Your task to perform on an android device: Clear all items from cart on target. Search for macbook on target, select the first entry, and add it to the cart. Image 0: 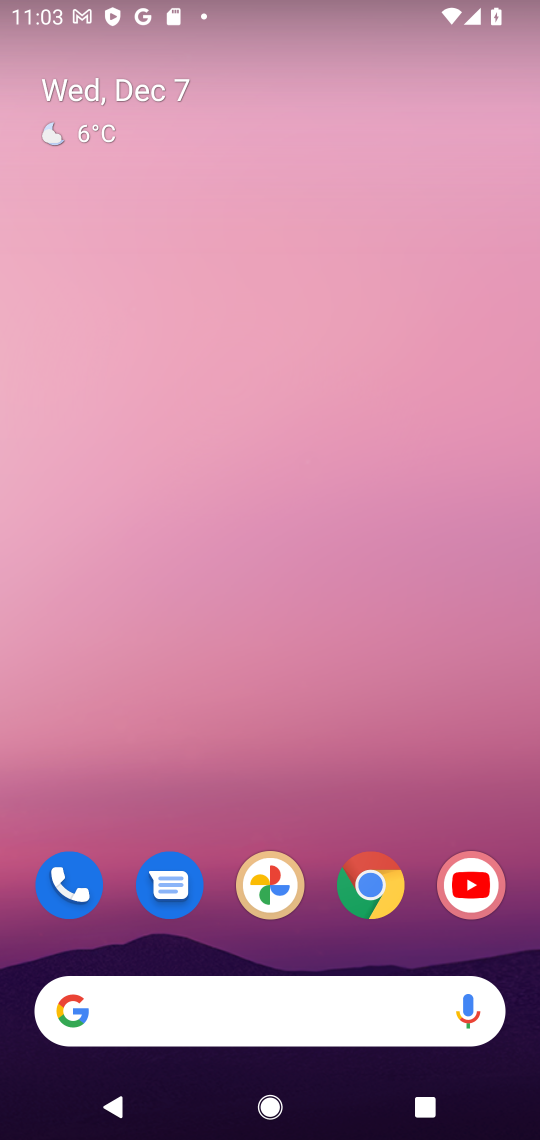
Step 0: click (365, 892)
Your task to perform on an android device: Clear all items from cart on target. Search for macbook on target, select the first entry, and add it to the cart. Image 1: 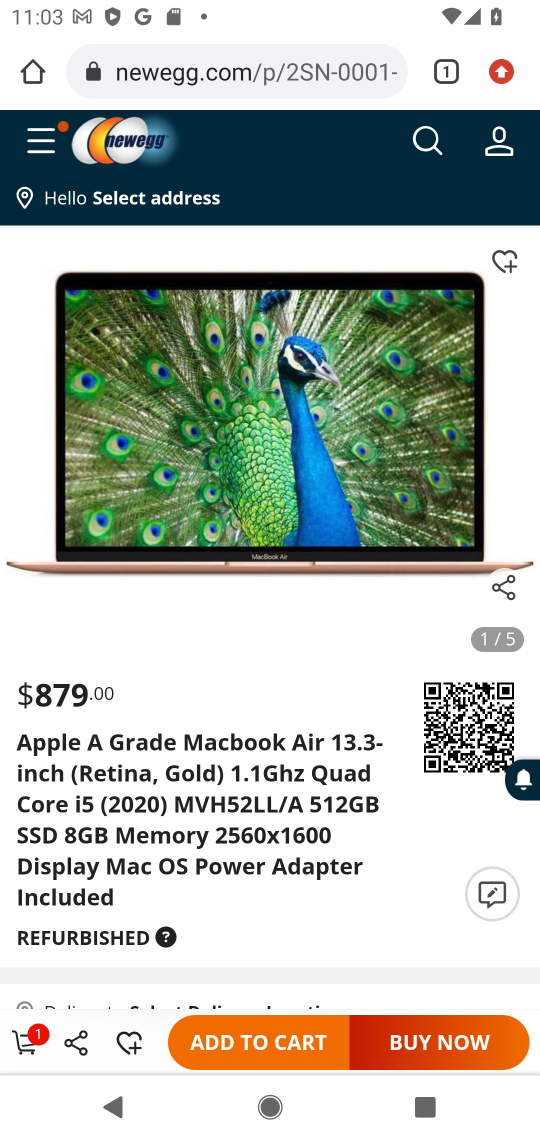
Step 1: click (241, 73)
Your task to perform on an android device: Clear all items from cart on target. Search for macbook on target, select the first entry, and add it to the cart. Image 2: 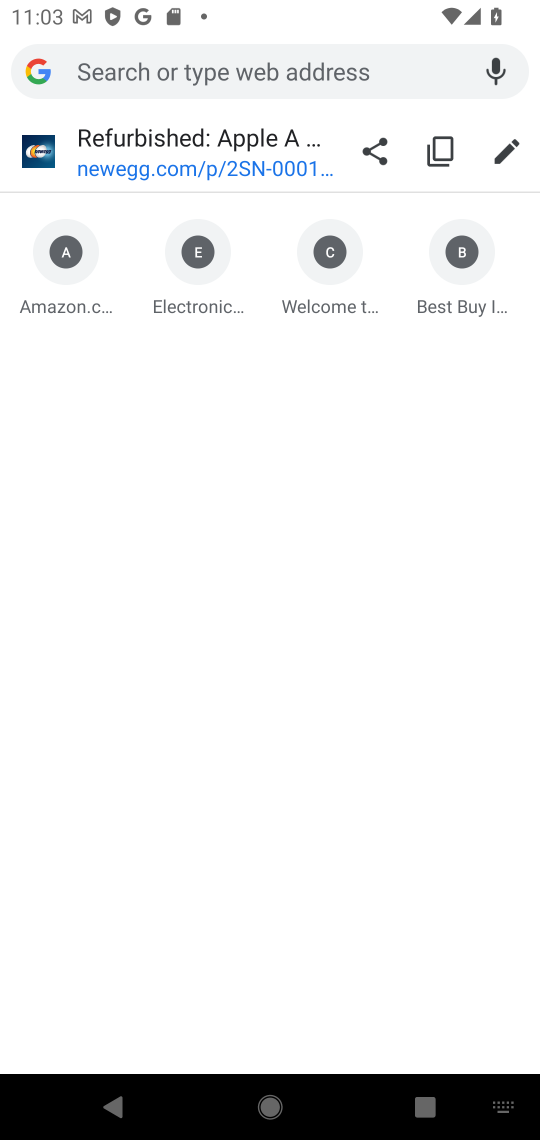
Step 2: type "TARGET"
Your task to perform on an android device: Clear all items from cart on target. Search for macbook on target, select the first entry, and add it to the cart. Image 3: 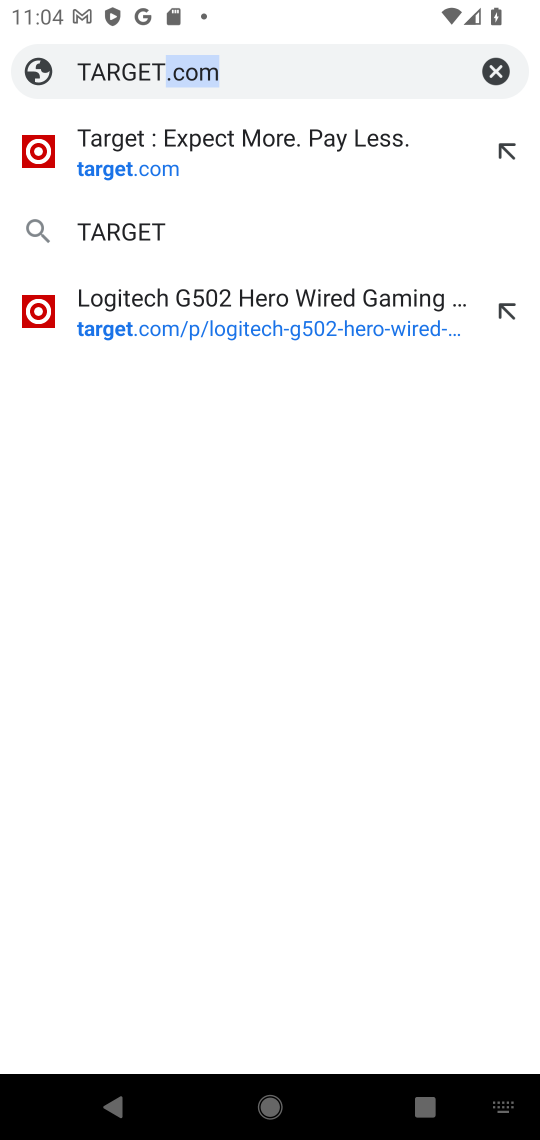
Step 3: click (265, 143)
Your task to perform on an android device: Clear all items from cart on target. Search for macbook on target, select the first entry, and add it to the cart. Image 4: 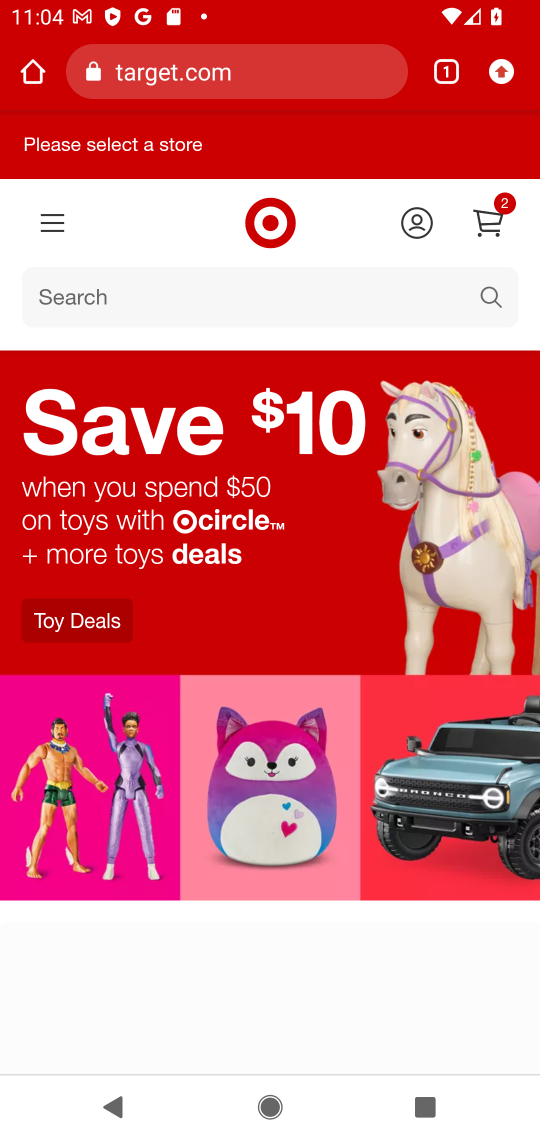
Step 4: click (486, 225)
Your task to perform on an android device: Clear all items from cart on target. Search for macbook on target, select the first entry, and add it to the cart. Image 5: 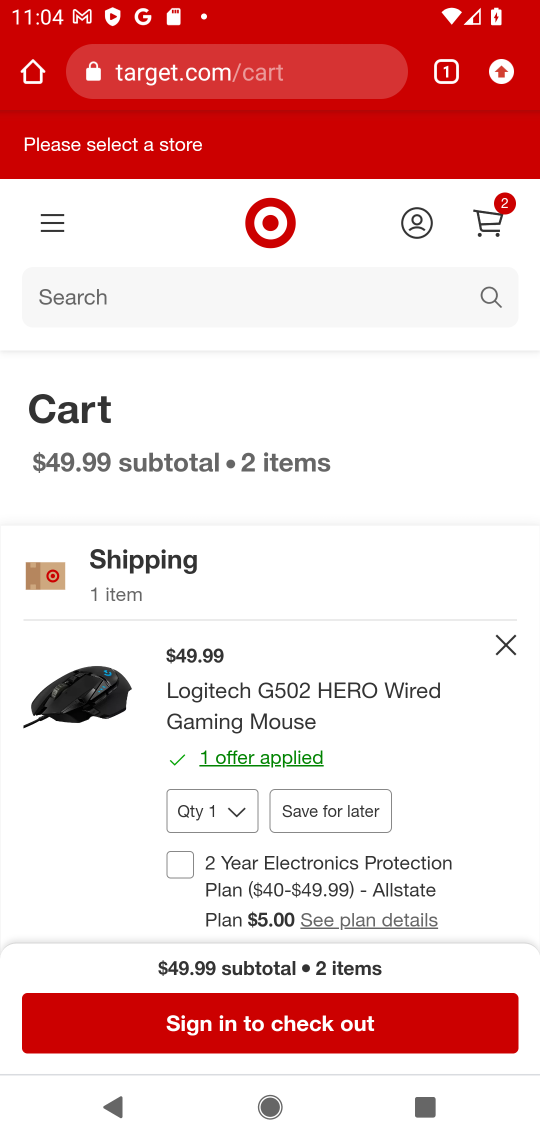
Step 5: click (503, 652)
Your task to perform on an android device: Clear all items from cart on target. Search for macbook on target, select the first entry, and add it to the cart. Image 6: 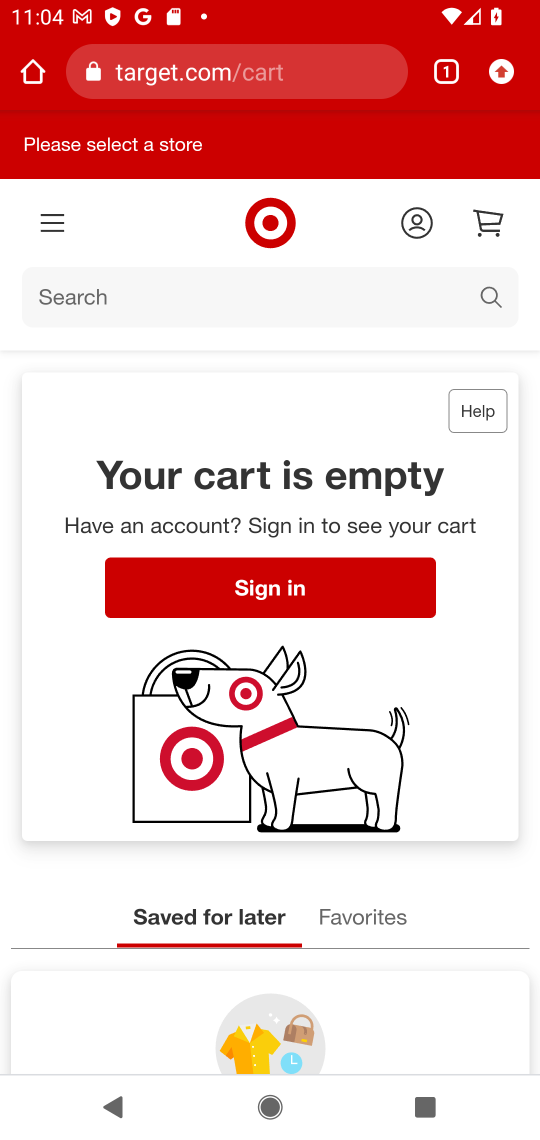
Step 6: click (413, 309)
Your task to perform on an android device: Clear all items from cart on target. Search for macbook on target, select the first entry, and add it to the cart. Image 7: 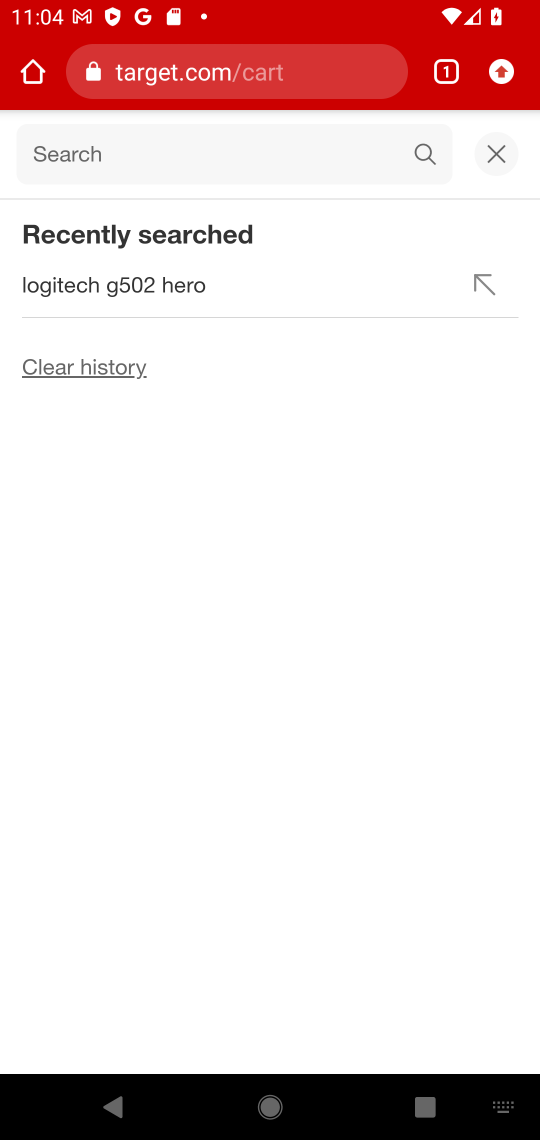
Step 7: type "MACBOOK"
Your task to perform on an android device: Clear all items from cart on target. Search for macbook on target, select the first entry, and add it to the cart. Image 8: 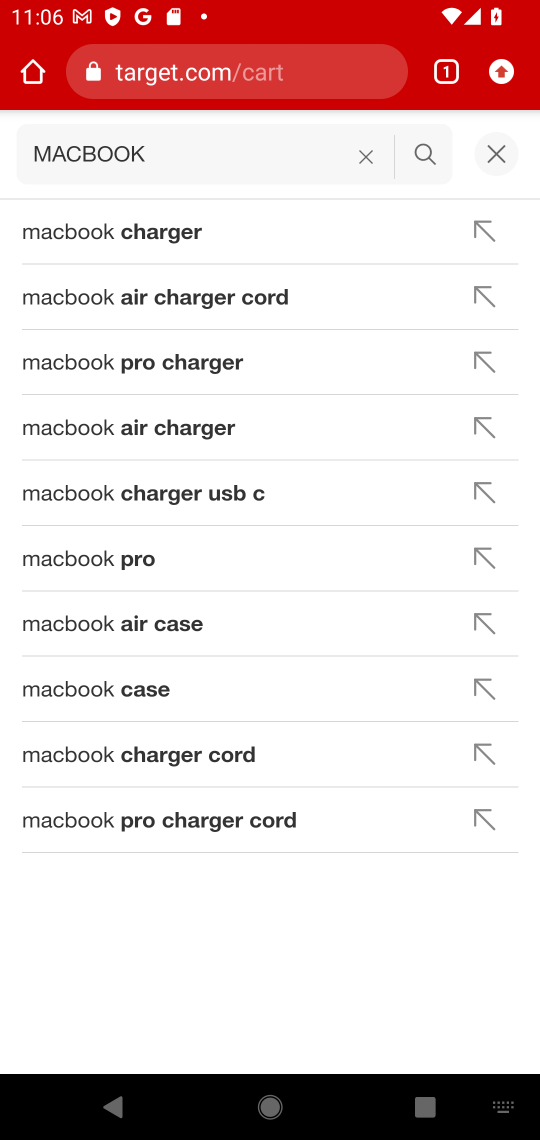
Step 8: click (171, 230)
Your task to perform on an android device: Clear all items from cart on target. Search for macbook on target, select the first entry, and add it to the cart. Image 9: 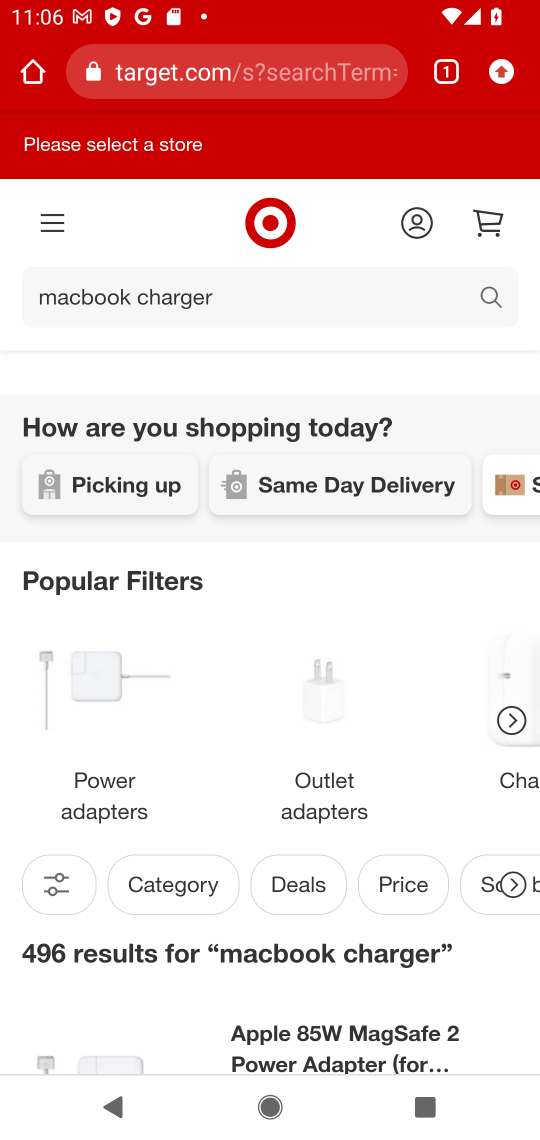
Step 9: click (142, 1042)
Your task to perform on an android device: Clear all items from cart on target. Search for macbook on target, select the first entry, and add it to the cart. Image 10: 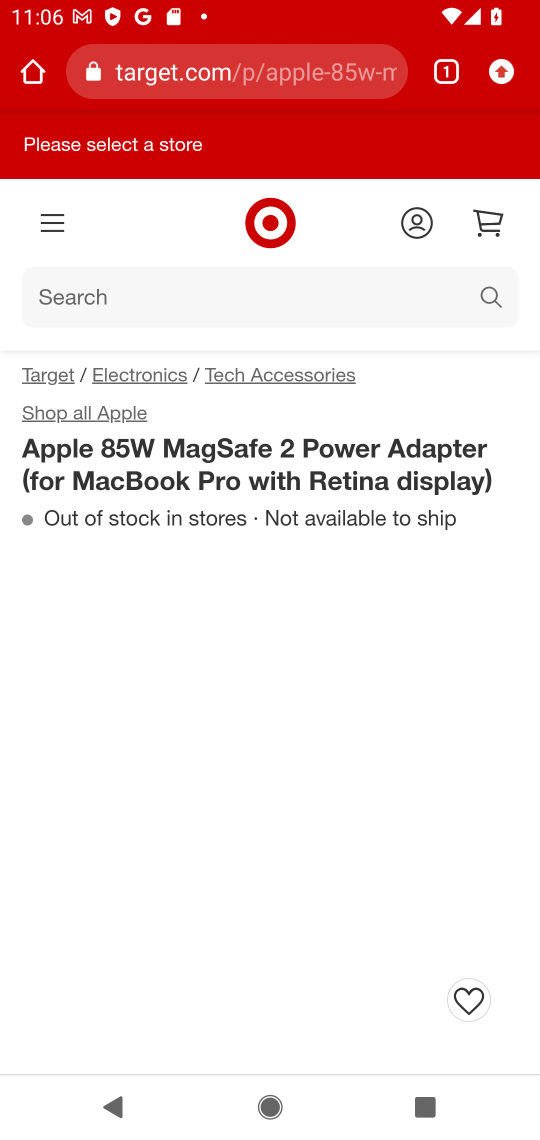
Step 10: drag from (346, 904) to (391, 184)
Your task to perform on an android device: Clear all items from cart on target. Search for macbook on target, select the first entry, and add it to the cart. Image 11: 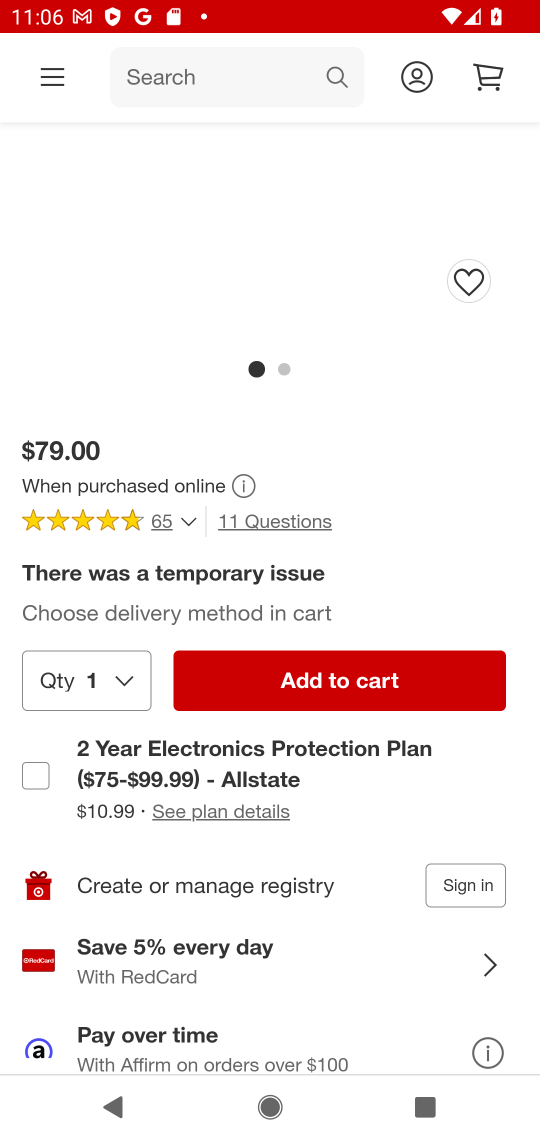
Step 11: click (340, 686)
Your task to perform on an android device: Clear all items from cart on target. Search for macbook on target, select the first entry, and add it to the cart. Image 12: 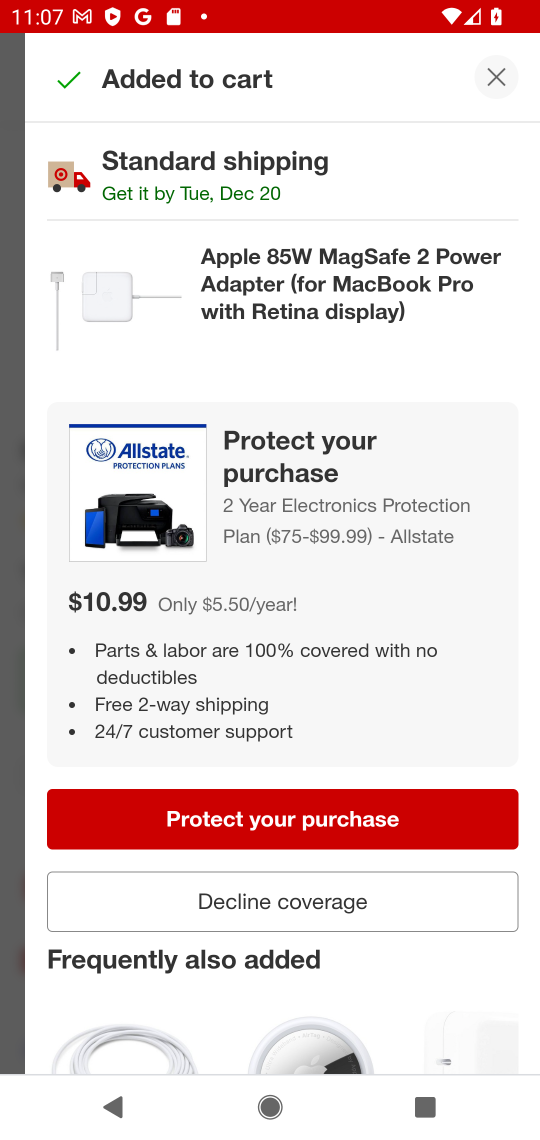
Step 12: task complete